Your task to perform on an android device: Search for "duracell triple a" on walmart, select the first entry, and add it to the cart. Image 0: 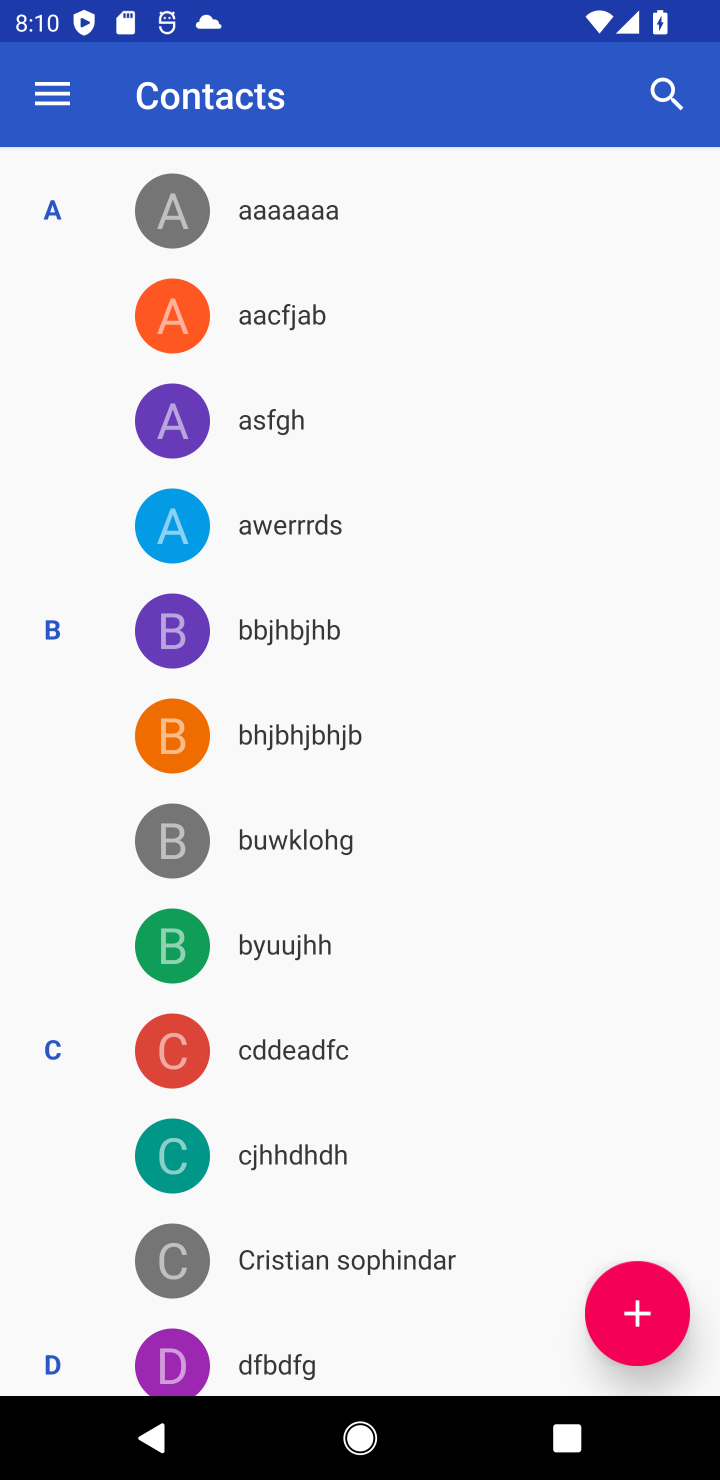
Step 0: press home button
Your task to perform on an android device: Search for "duracell triple a" on walmart, select the first entry, and add it to the cart. Image 1: 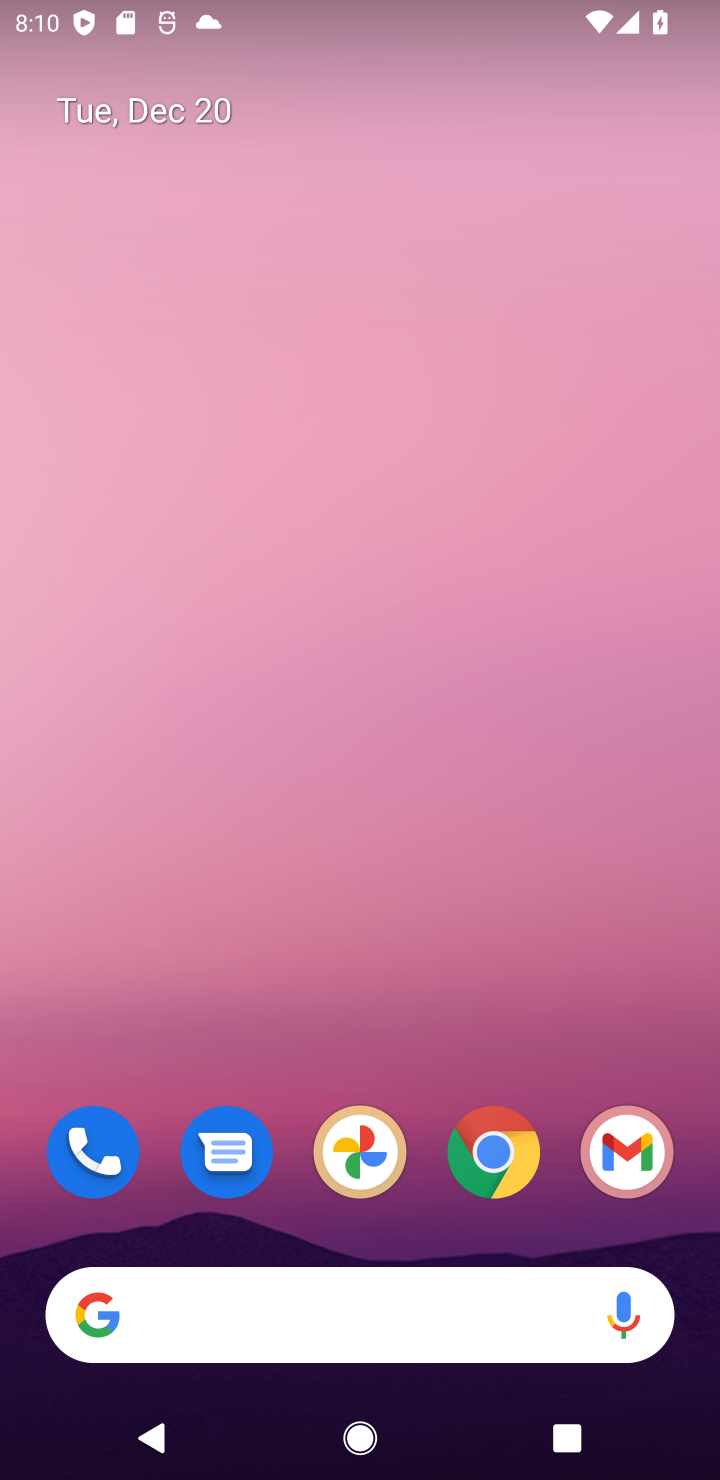
Step 1: click (508, 1174)
Your task to perform on an android device: Search for "duracell triple a" on walmart, select the first entry, and add it to the cart. Image 2: 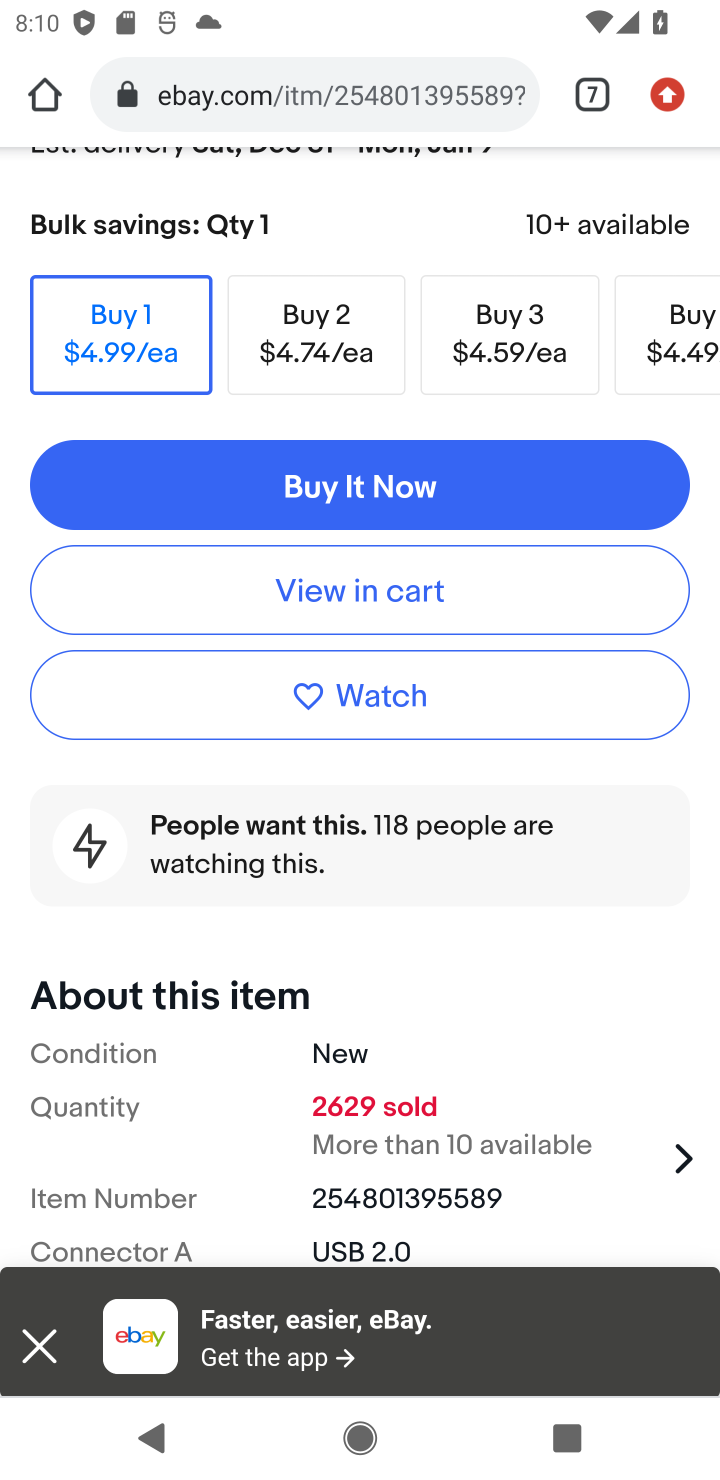
Step 2: click (596, 84)
Your task to perform on an android device: Search for "duracell triple a" on walmart, select the first entry, and add it to the cart. Image 3: 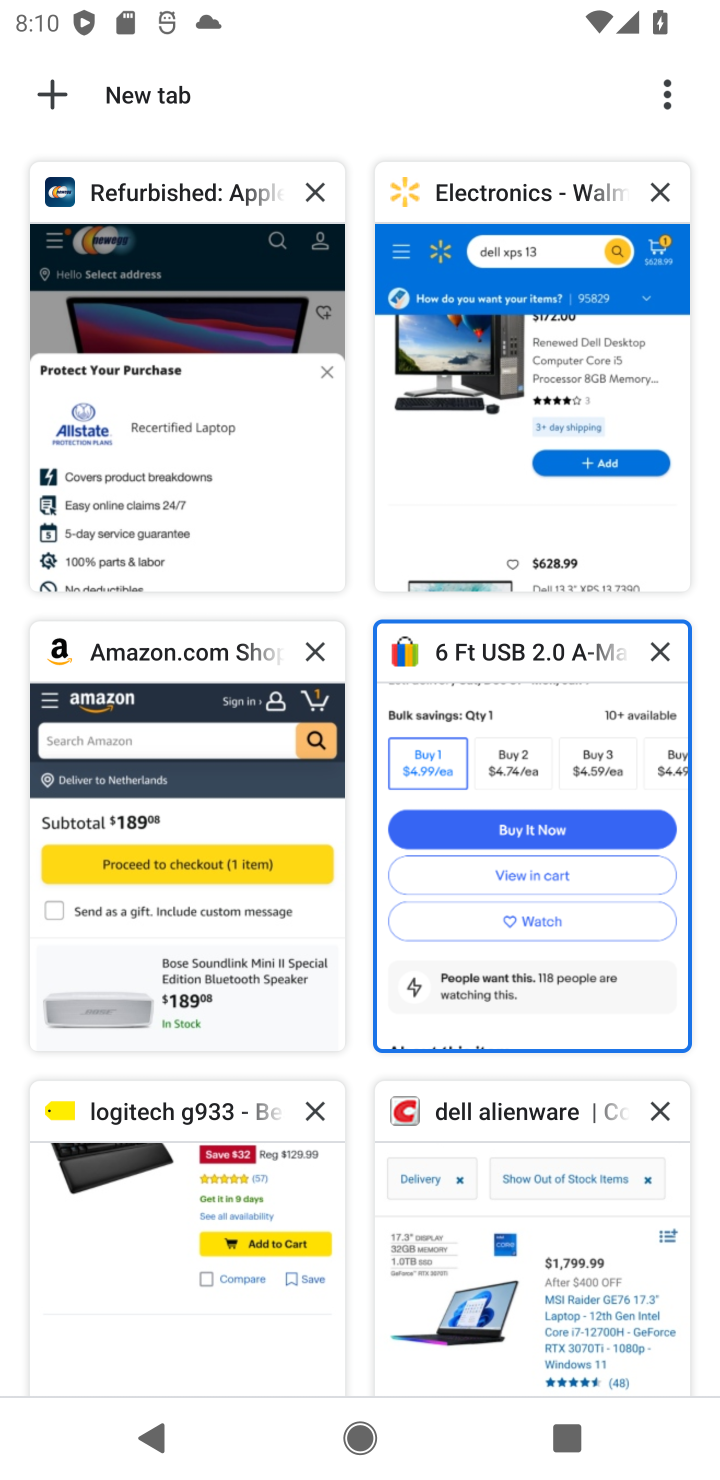
Step 3: click (505, 446)
Your task to perform on an android device: Search for "duracell triple a" on walmart, select the first entry, and add it to the cart. Image 4: 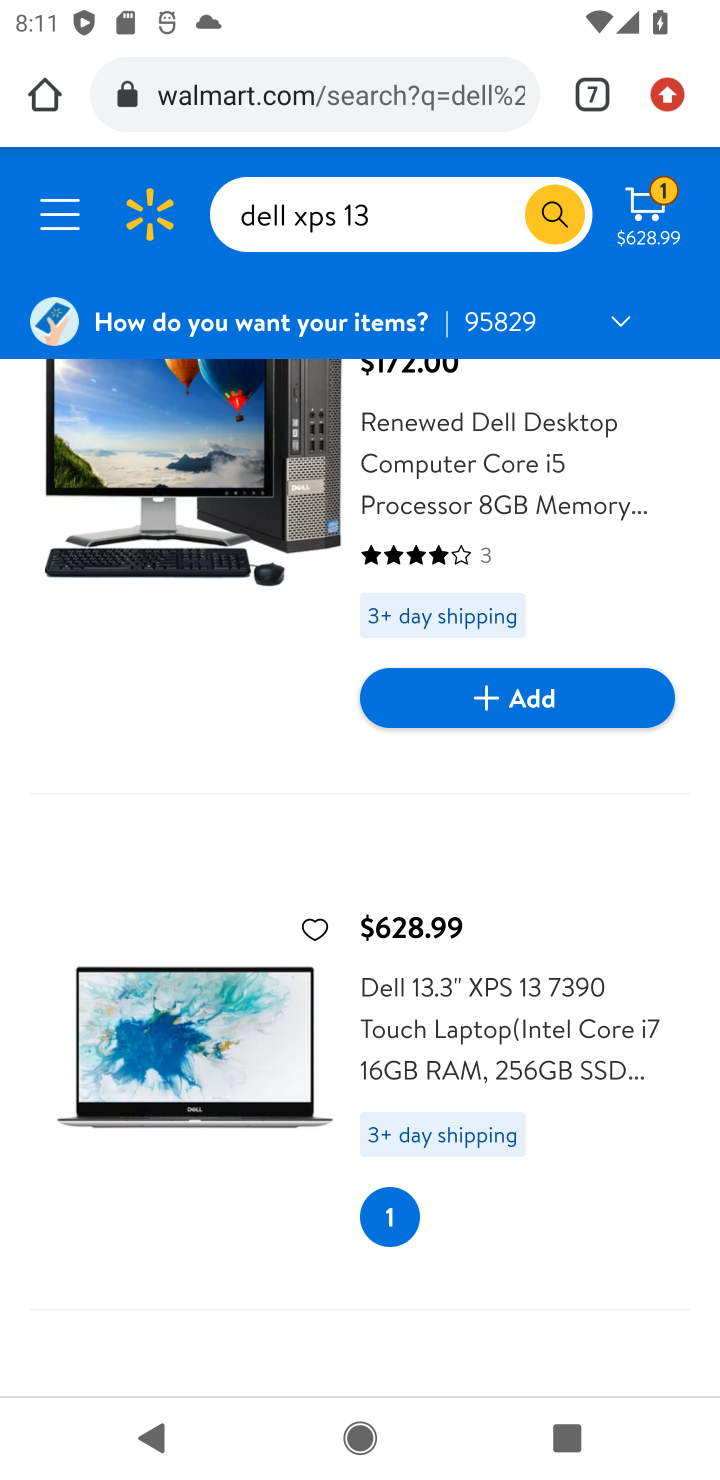
Step 4: click (350, 203)
Your task to perform on an android device: Search for "duracell triple a" on walmart, select the first entry, and add it to the cart. Image 5: 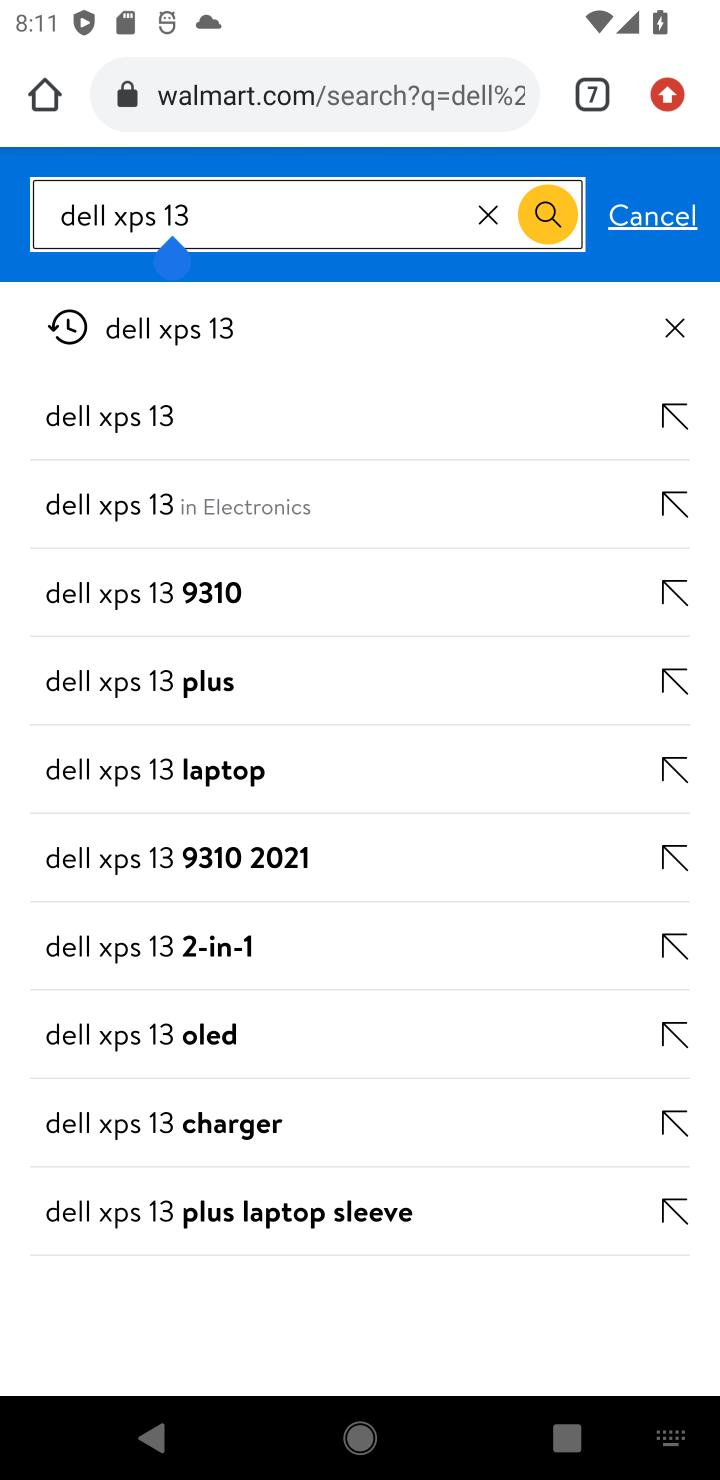
Step 5: click (485, 220)
Your task to perform on an android device: Search for "duracell triple a" on walmart, select the first entry, and add it to the cart. Image 6: 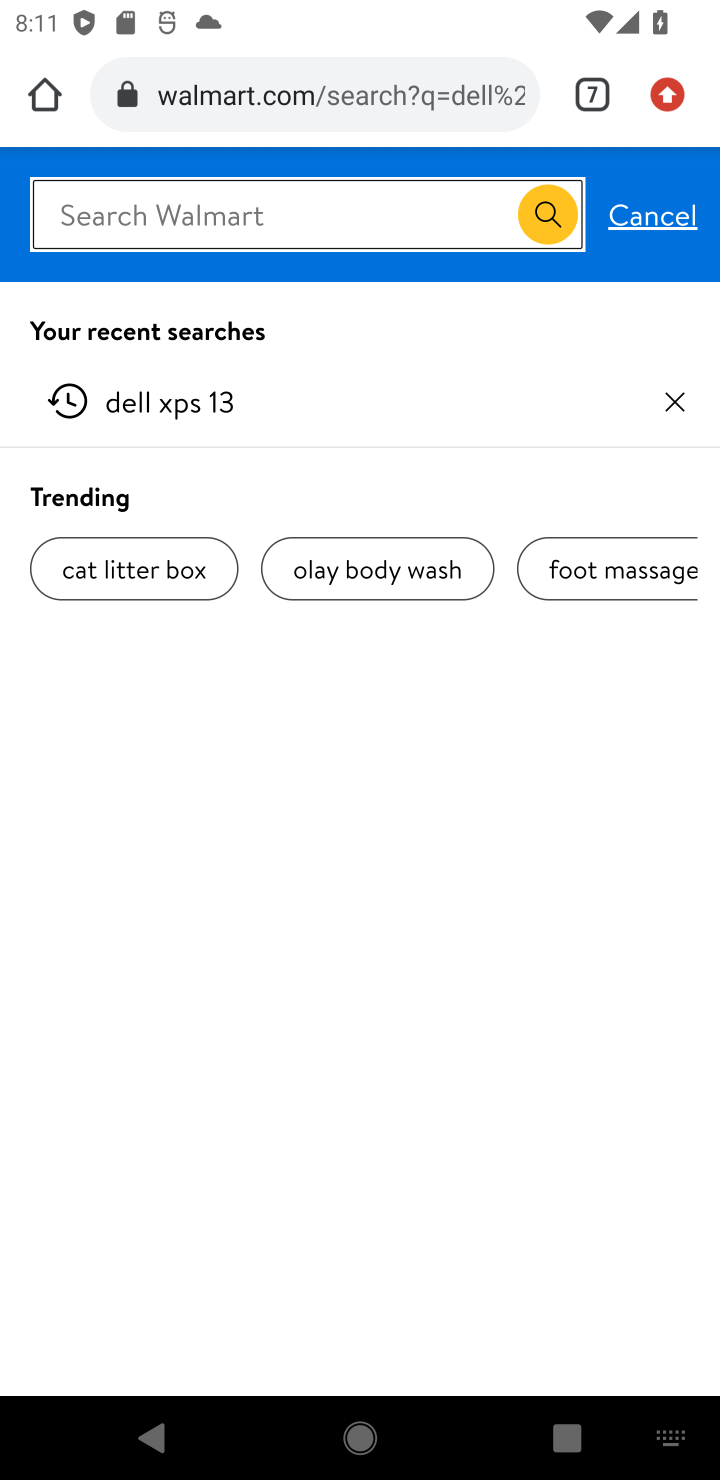
Step 6: type "duracell triple a battery"
Your task to perform on an android device: Search for "duracell triple a" on walmart, select the first entry, and add it to the cart. Image 7: 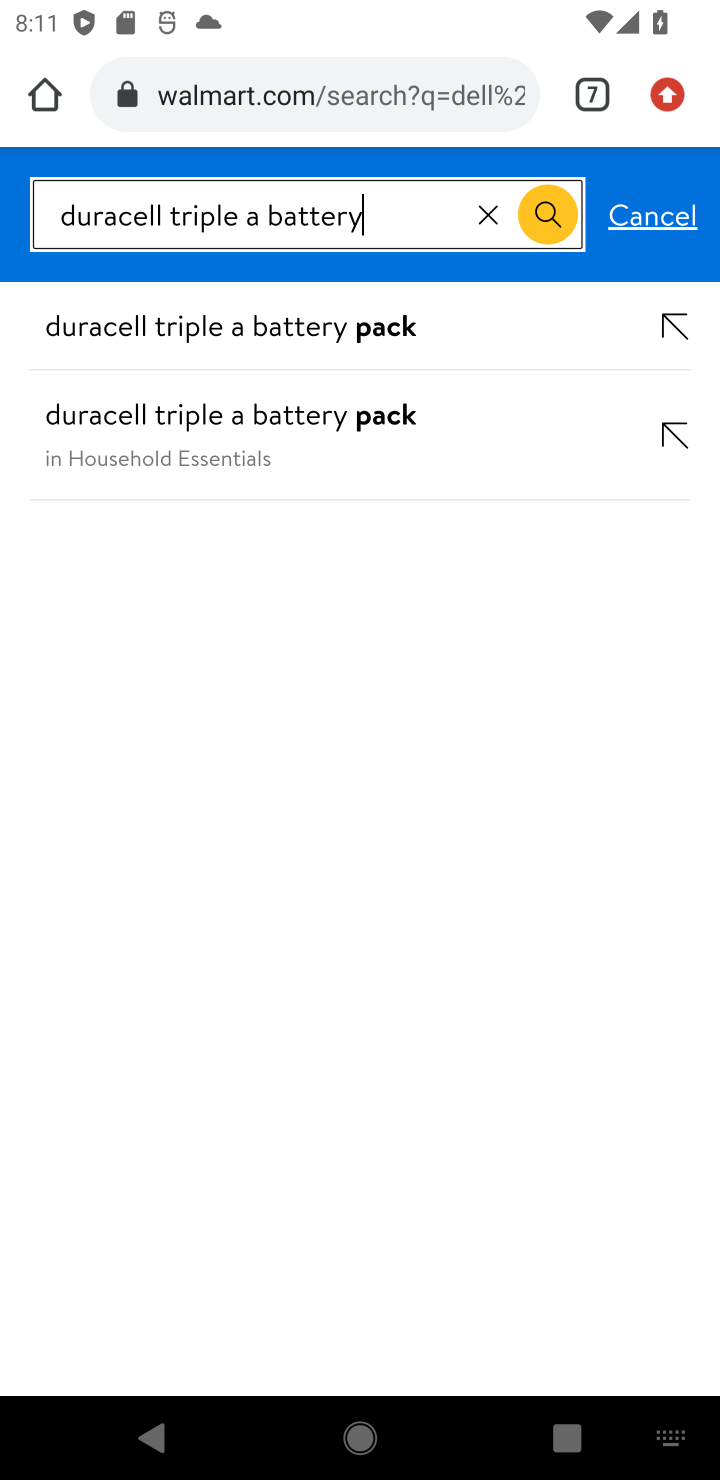
Step 7: click (334, 409)
Your task to perform on an android device: Search for "duracell triple a" on walmart, select the first entry, and add it to the cart. Image 8: 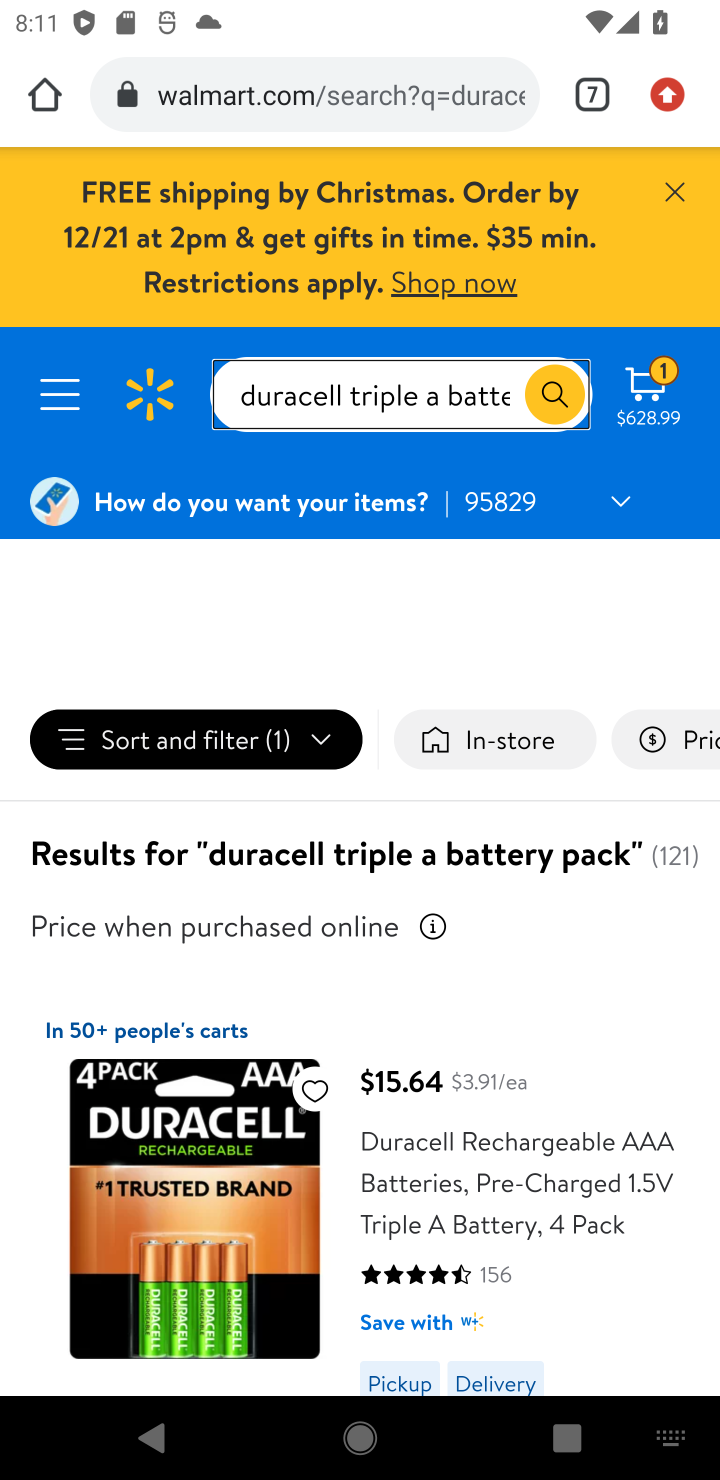
Step 8: drag from (496, 1067) to (598, 400)
Your task to perform on an android device: Search for "duracell triple a" on walmart, select the first entry, and add it to the cart. Image 9: 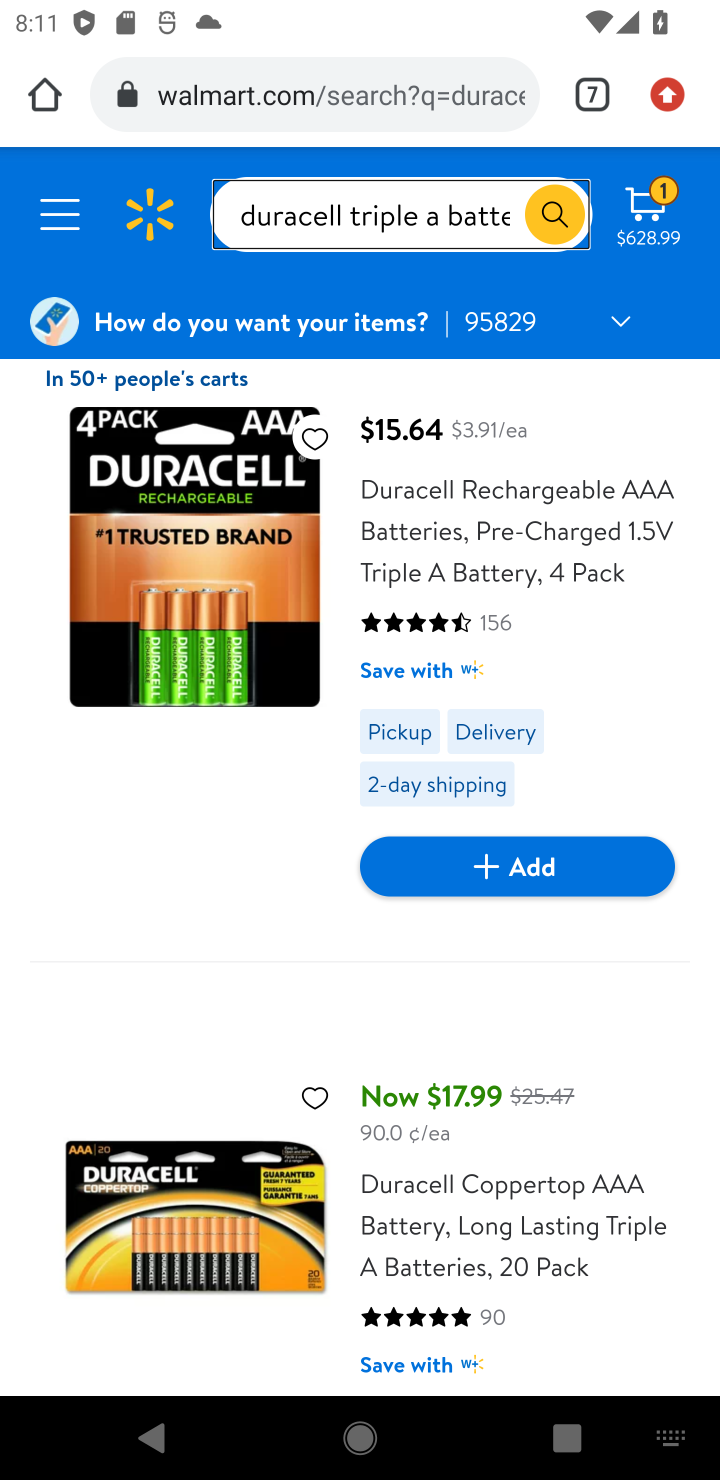
Step 9: click (555, 872)
Your task to perform on an android device: Search for "duracell triple a" on walmart, select the first entry, and add it to the cart. Image 10: 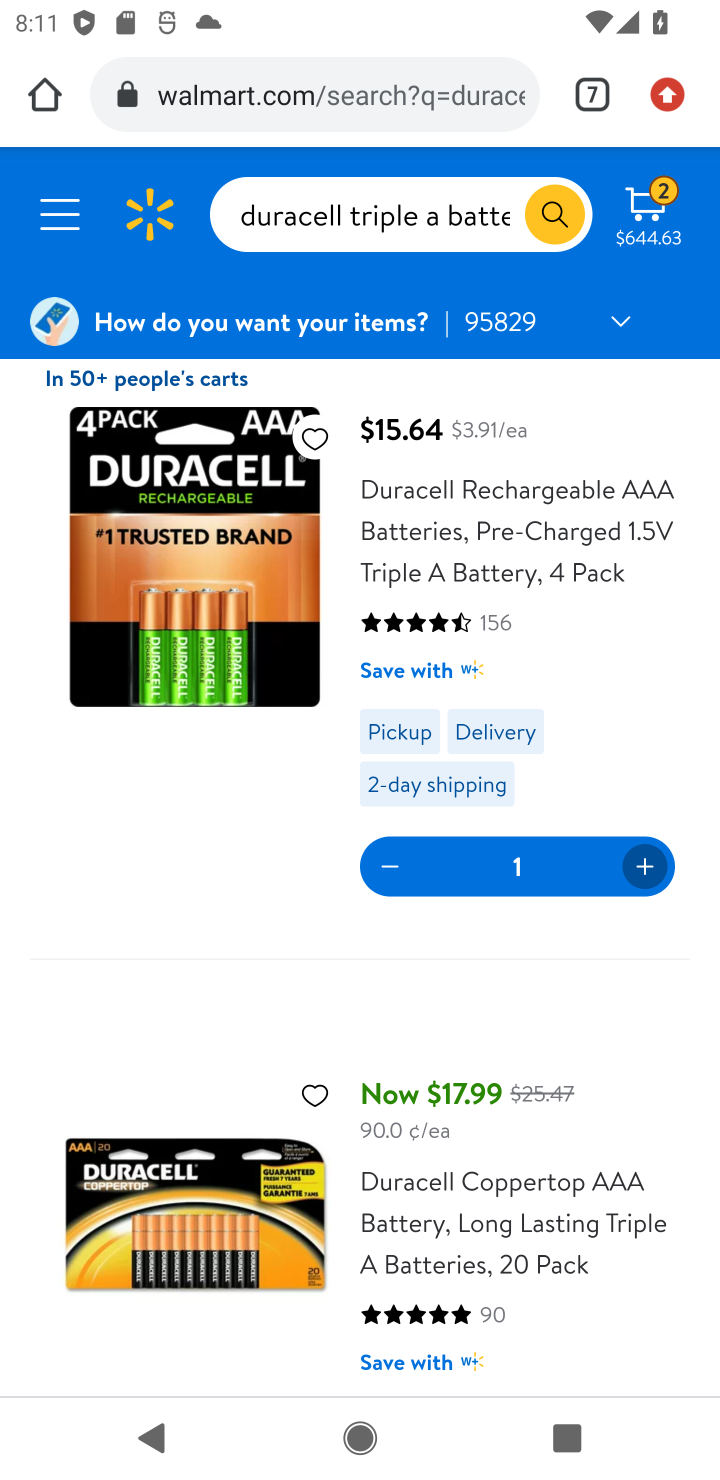
Step 10: task complete